Your task to perform on an android device: Do I have any events this weekend? Image 0: 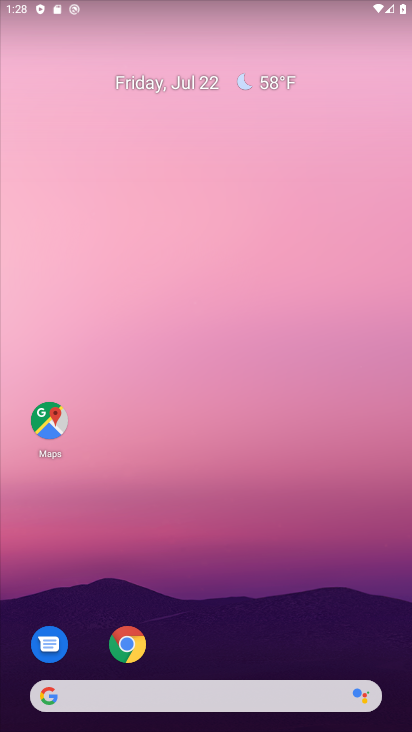
Step 0: drag from (207, 663) to (235, 124)
Your task to perform on an android device: Do I have any events this weekend? Image 1: 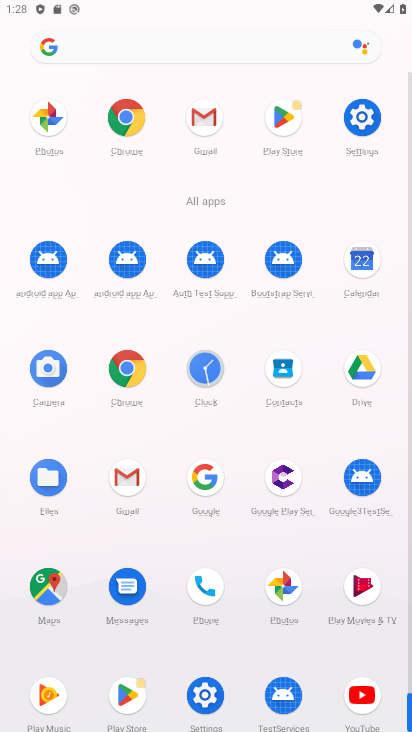
Step 1: click (349, 261)
Your task to perform on an android device: Do I have any events this weekend? Image 2: 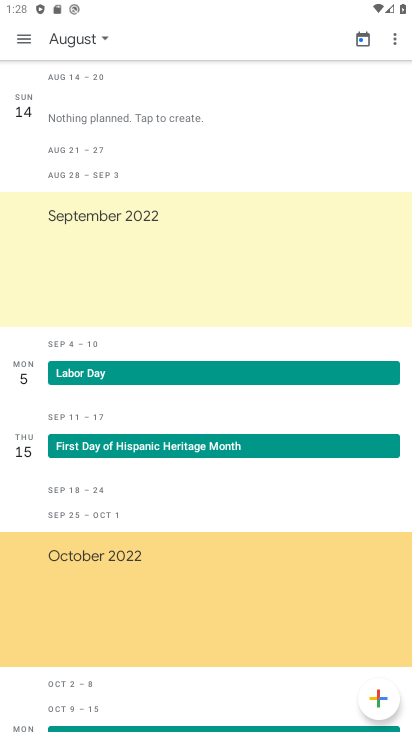
Step 2: click (92, 44)
Your task to perform on an android device: Do I have any events this weekend? Image 3: 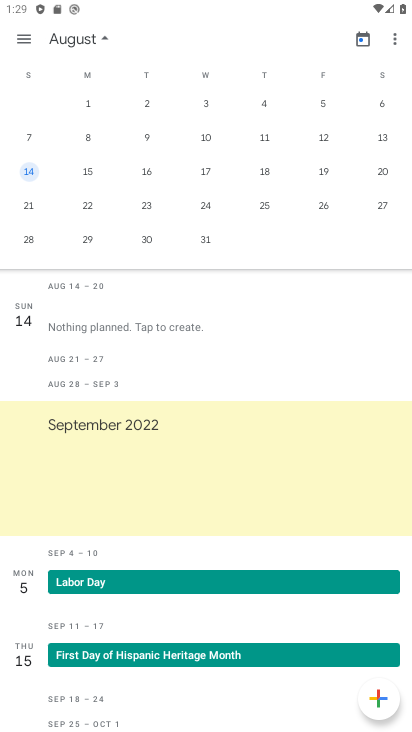
Step 3: drag from (53, 183) to (393, 212)
Your task to perform on an android device: Do I have any events this weekend? Image 4: 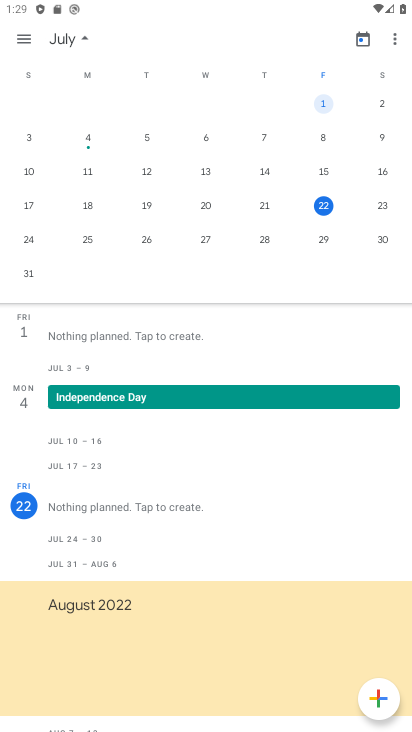
Step 4: click (385, 205)
Your task to perform on an android device: Do I have any events this weekend? Image 5: 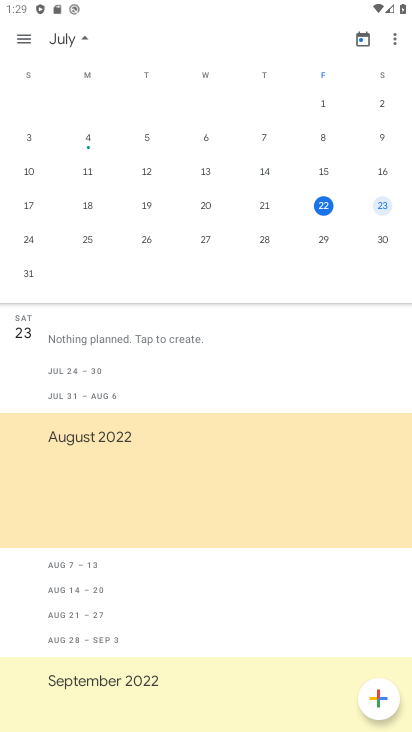
Step 5: click (81, 203)
Your task to perform on an android device: Do I have any events this weekend? Image 6: 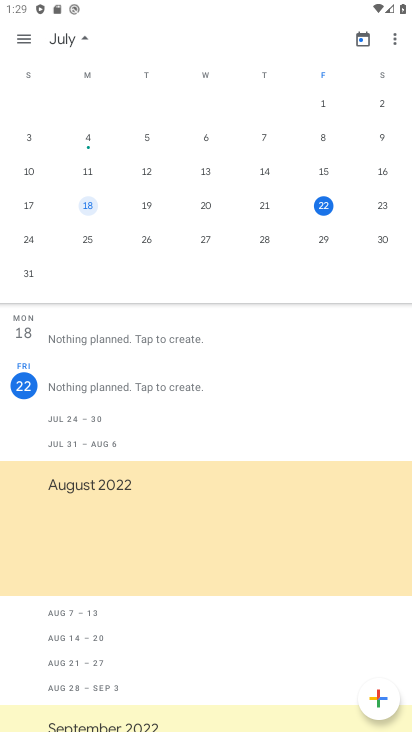
Step 6: task complete